Your task to perform on an android device: Open the stopwatch Image 0: 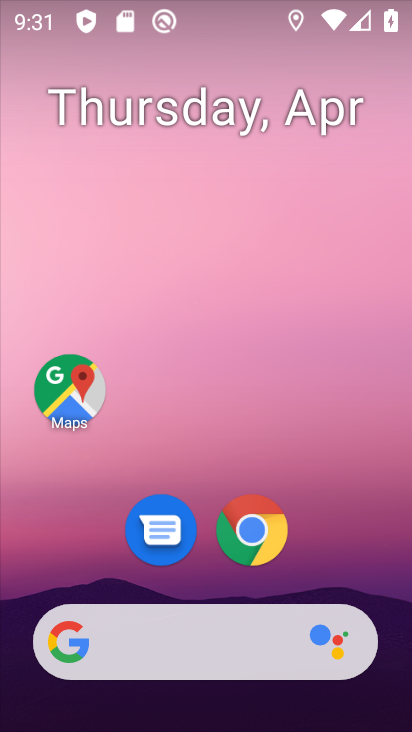
Step 0: drag from (353, 560) to (246, 31)
Your task to perform on an android device: Open the stopwatch Image 1: 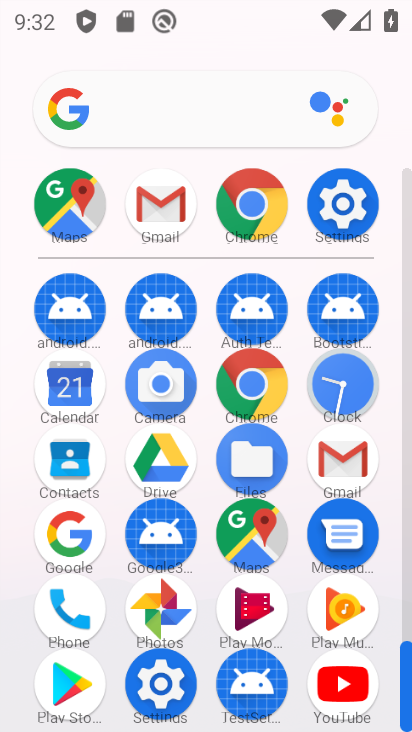
Step 1: click (360, 378)
Your task to perform on an android device: Open the stopwatch Image 2: 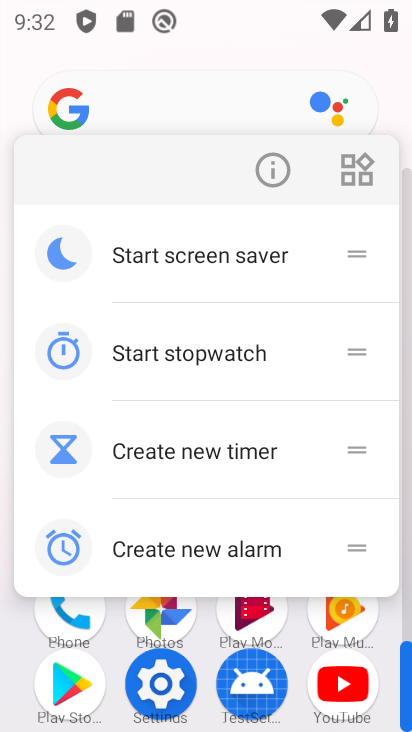
Step 2: press back button
Your task to perform on an android device: Open the stopwatch Image 3: 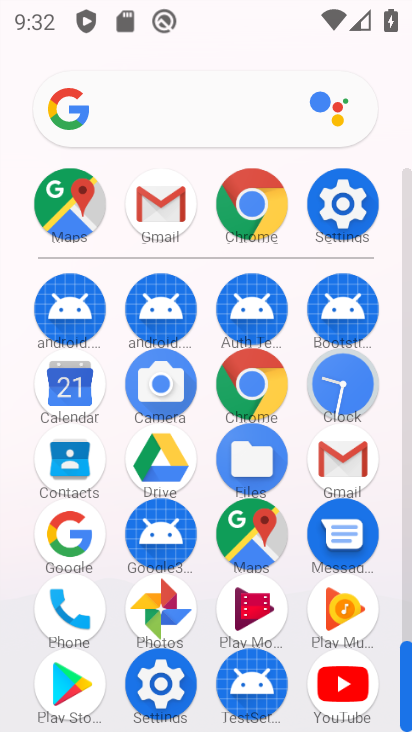
Step 3: click (336, 385)
Your task to perform on an android device: Open the stopwatch Image 4: 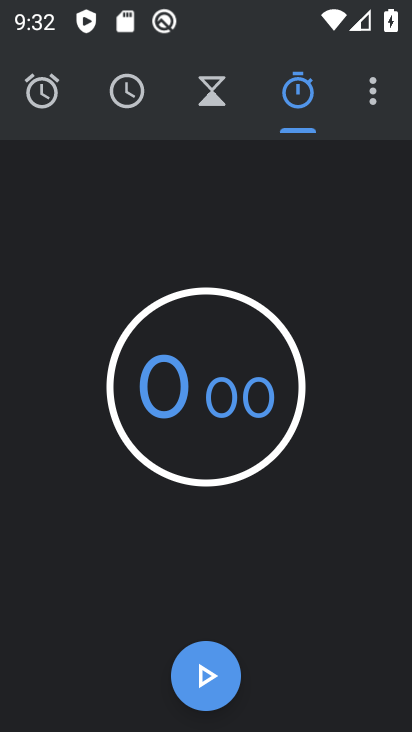
Step 4: task complete